Your task to perform on an android device: turn notification dots on Image 0: 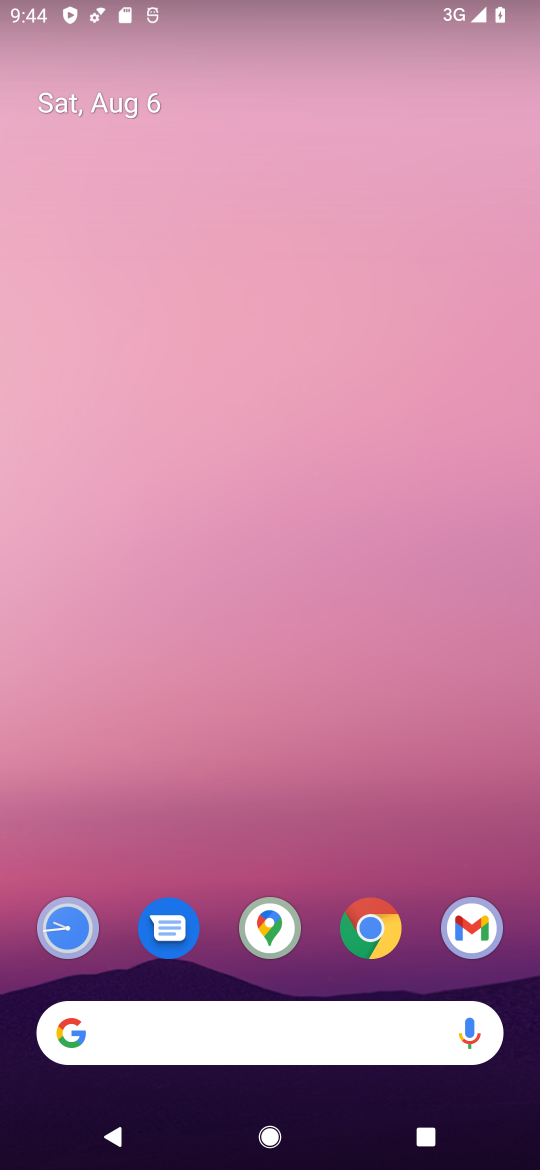
Step 0: drag from (269, 832) to (231, 24)
Your task to perform on an android device: turn notification dots on Image 1: 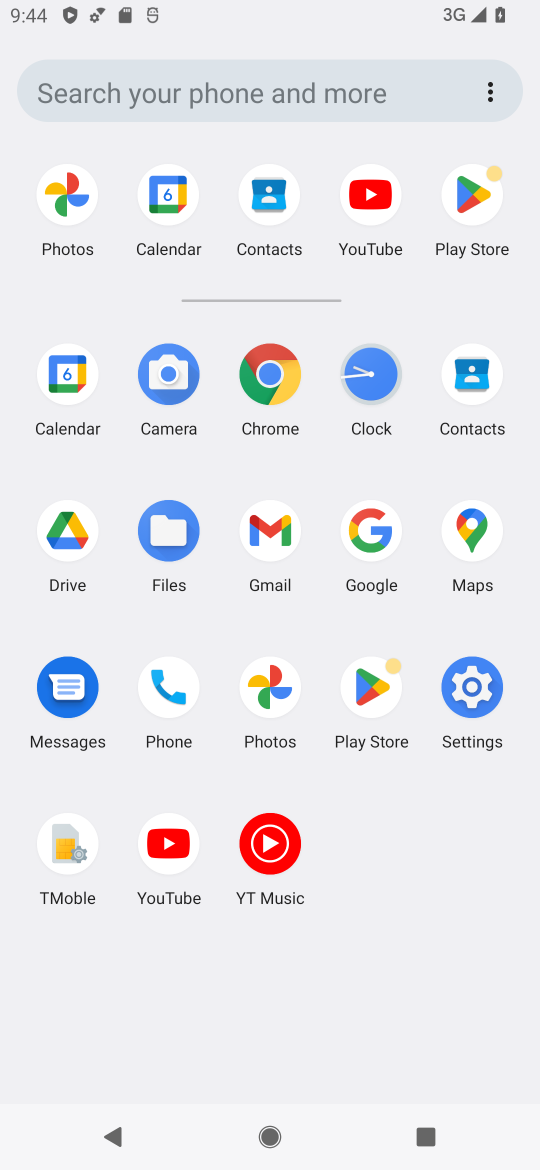
Step 1: click (467, 684)
Your task to perform on an android device: turn notification dots on Image 2: 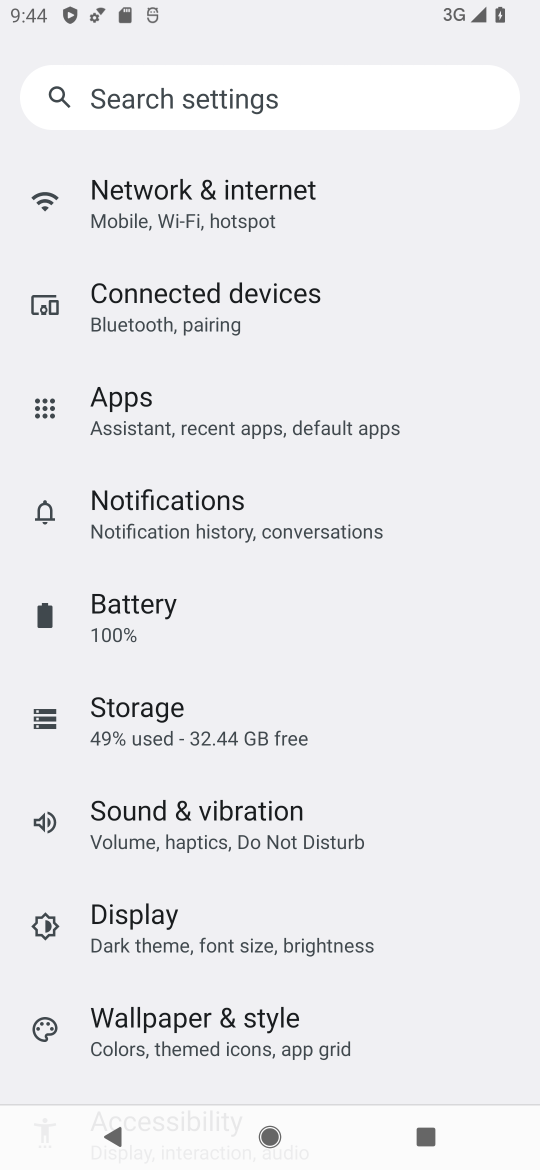
Step 2: click (207, 493)
Your task to perform on an android device: turn notification dots on Image 3: 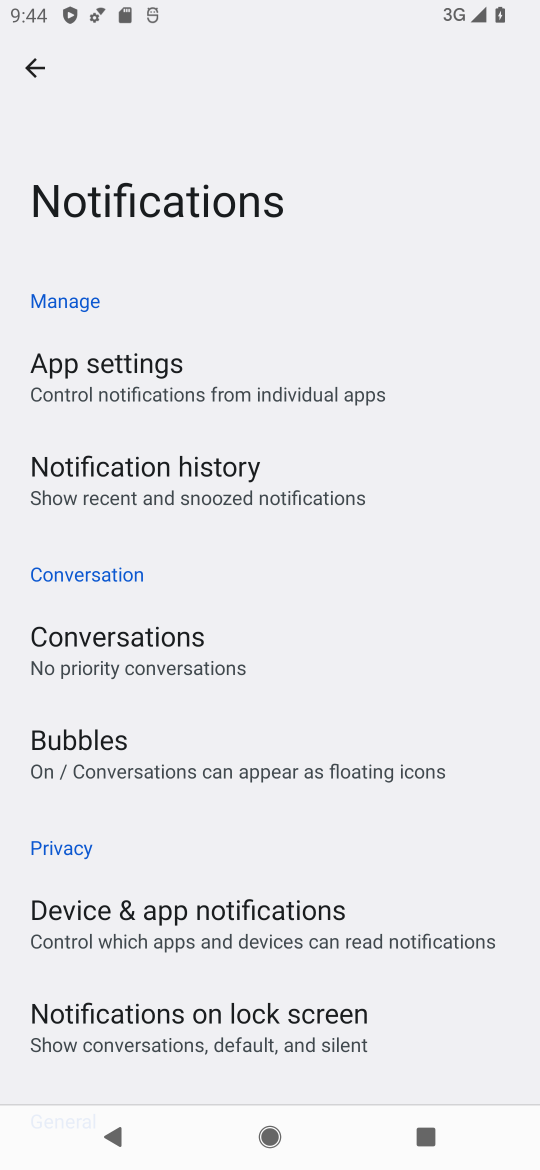
Step 3: task complete